Your task to perform on an android device: Open notification settings Image 0: 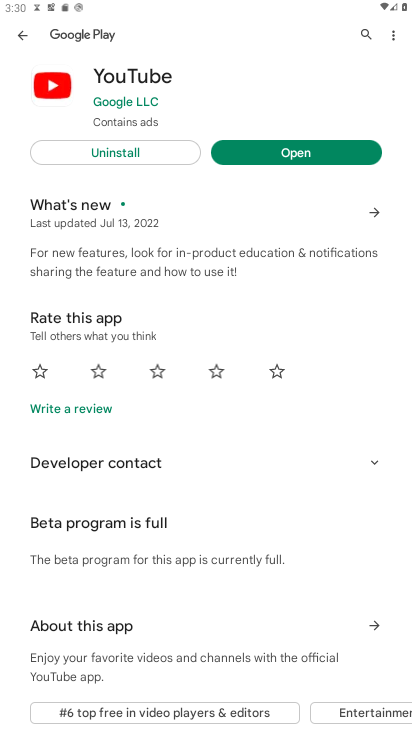
Step 0: press home button
Your task to perform on an android device: Open notification settings Image 1: 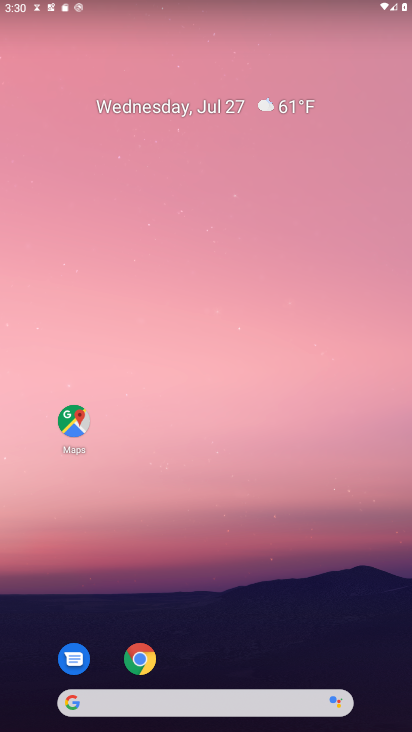
Step 1: drag from (189, 700) to (182, 152)
Your task to perform on an android device: Open notification settings Image 2: 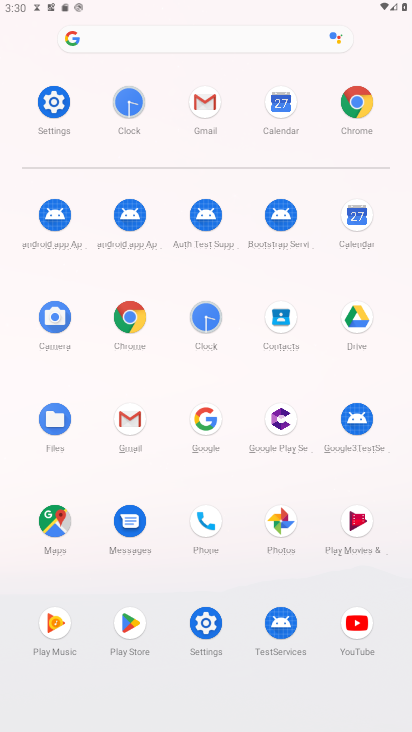
Step 2: click (202, 630)
Your task to perform on an android device: Open notification settings Image 3: 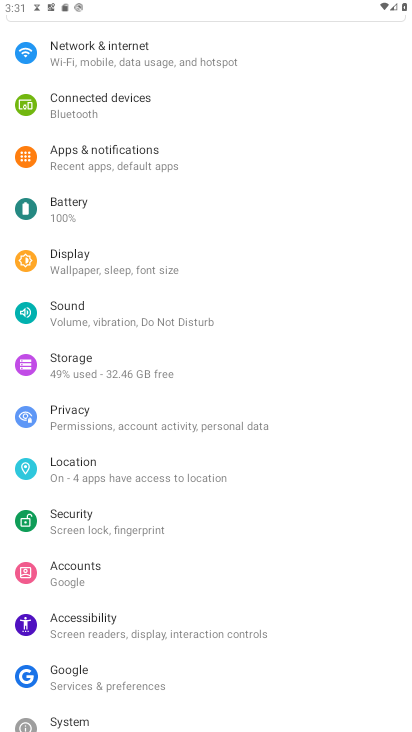
Step 3: click (122, 163)
Your task to perform on an android device: Open notification settings Image 4: 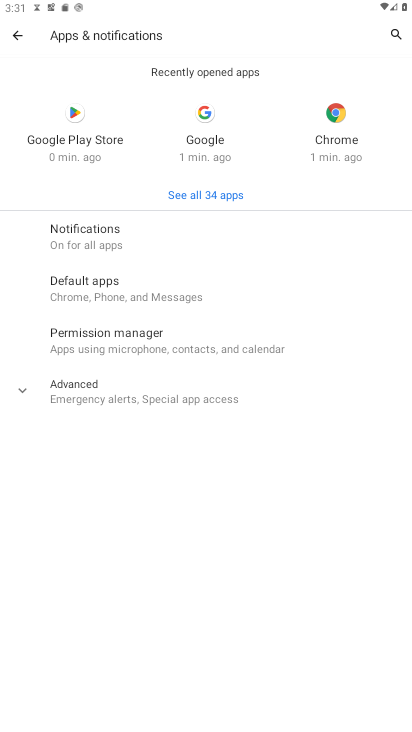
Step 4: task complete